Your task to perform on an android device: Clear the cart on target.com. Add "bose quietcomfort 35" to the cart on target.com Image 0: 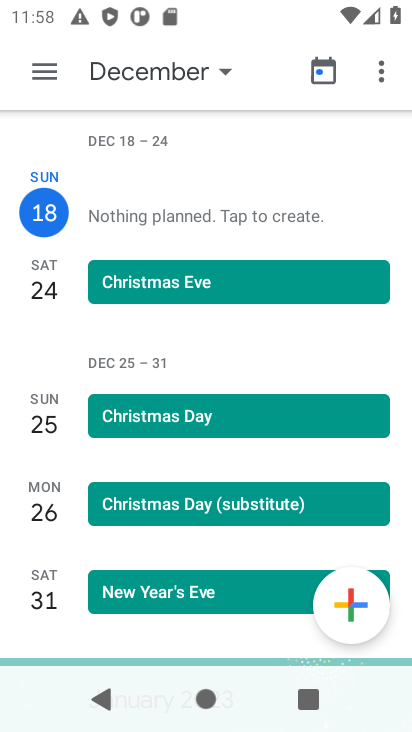
Step 0: press home button
Your task to perform on an android device: Clear the cart on target.com. Add "bose quietcomfort 35" to the cart on target.com Image 1: 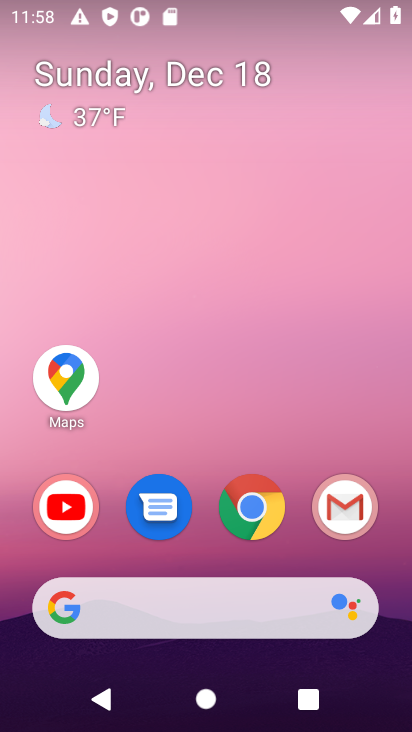
Step 1: click (249, 515)
Your task to perform on an android device: Clear the cart on target.com. Add "bose quietcomfort 35" to the cart on target.com Image 2: 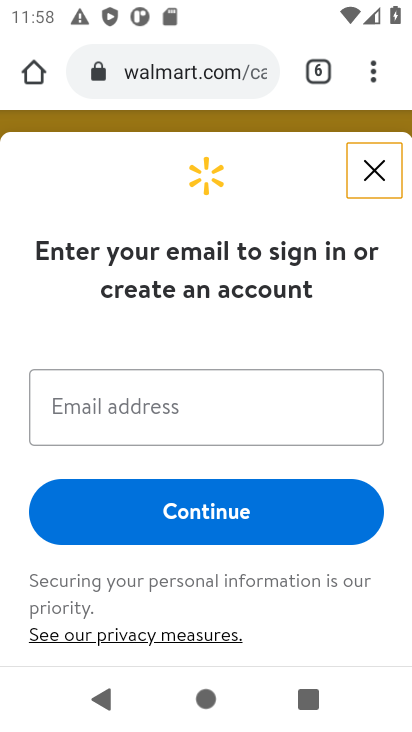
Step 2: click (191, 65)
Your task to perform on an android device: Clear the cart on target.com. Add "bose quietcomfort 35" to the cart on target.com Image 3: 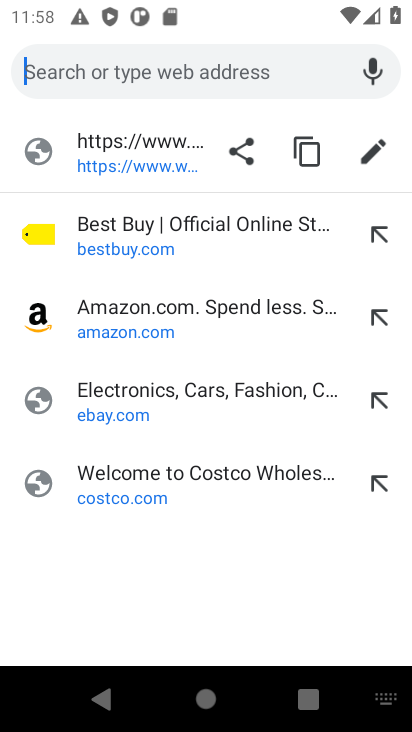
Step 3: type "target.com"
Your task to perform on an android device: Clear the cart on target.com. Add "bose quietcomfort 35" to the cart on target.com Image 4: 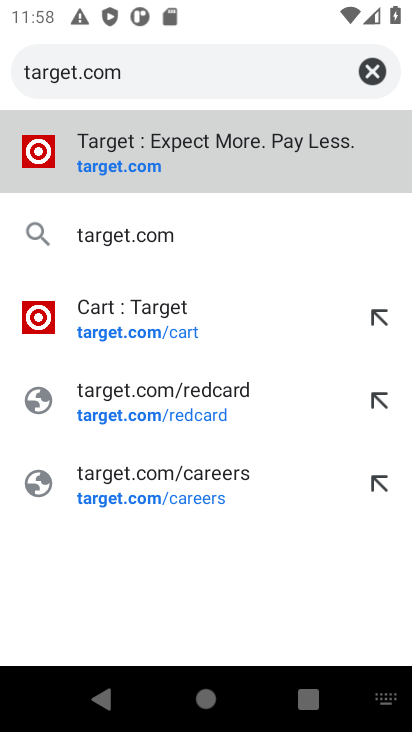
Step 4: click (107, 153)
Your task to perform on an android device: Clear the cart on target.com. Add "bose quietcomfort 35" to the cart on target.com Image 5: 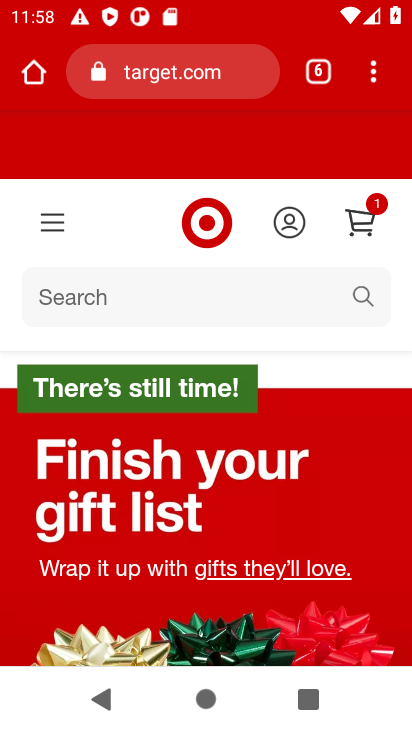
Step 5: click (357, 228)
Your task to perform on an android device: Clear the cart on target.com. Add "bose quietcomfort 35" to the cart on target.com Image 6: 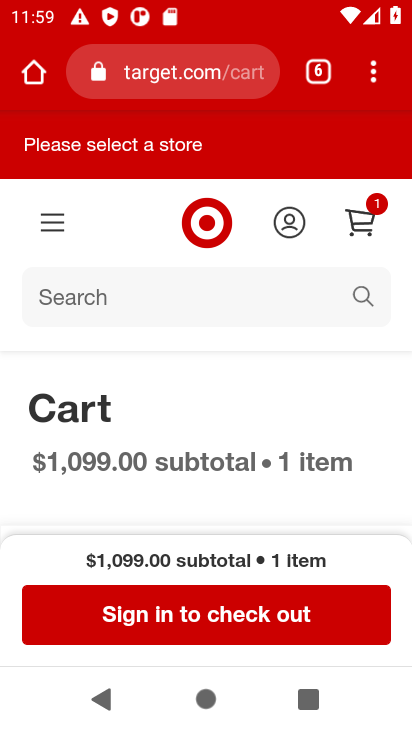
Step 6: drag from (194, 458) to (195, 170)
Your task to perform on an android device: Clear the cart on target.com. Add "bose quietcomfort 35" to the cart on target.com Image 7: 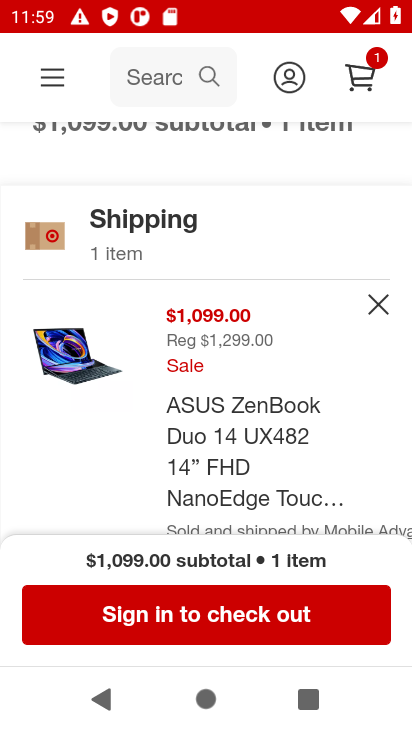
Step 7: click (376, 307)
Your task to perform on an android device: Clear the cart on target.com. Add "bose quietcomfort 35" to the cart on target.com Image 8: 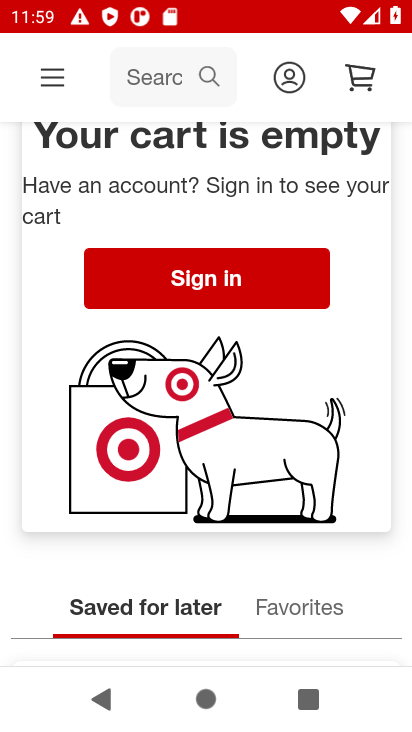
Step 8: drag from (189, 221) to (184, 449)
Your task to perform on an android device: Clear the cart on target.com. Add "bose quietcomfort 35" to the cart on target.com Image 9: 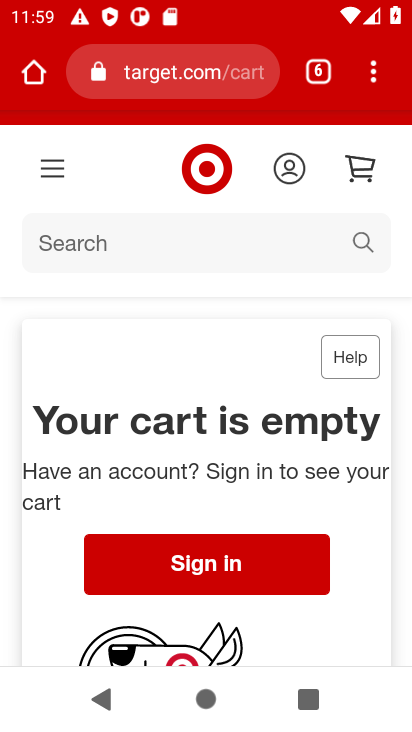
Step 9: click (92, 246)
Your task to perform on an android device: Clear the cart on target.com. Add "bose quietcomfort 35" to the cart on target.com Image 10: 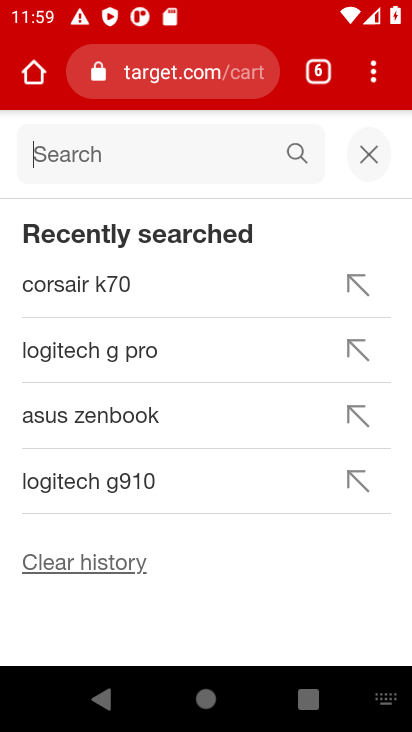
Step 10: type "bose quietcomfort 35"
Your task to perform on an android device: Clear the cart on target.com. Add "bose quietcomfort 35" to the cart on target.com Image 11: 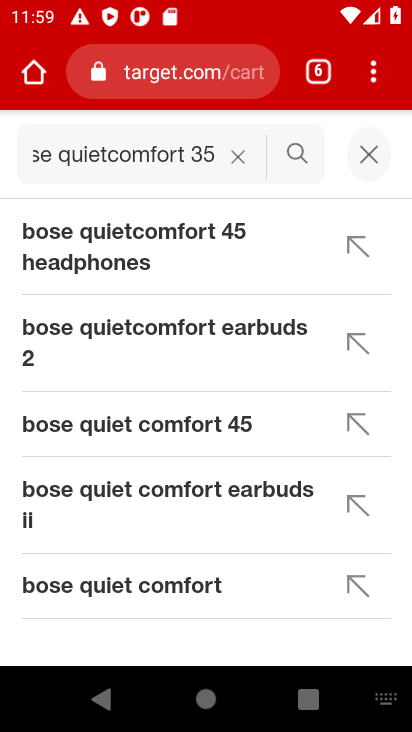
Step 11: click (303, 154)
Your task to perform on an android device: Clear the cart on target.com. Add "bose quietcomfort 35" to the cart on target.com Image 12: 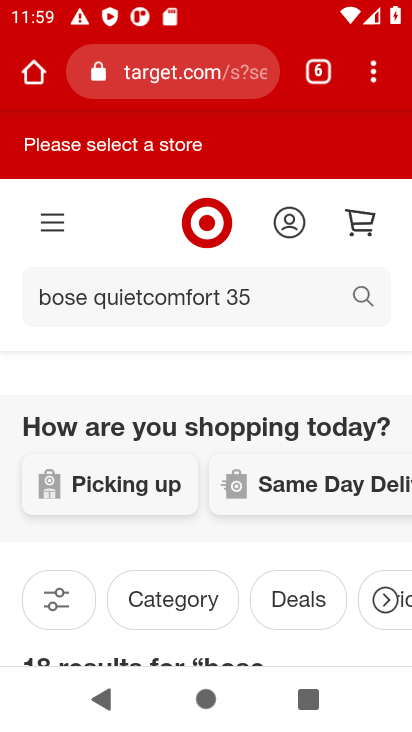
Step 12: drag from (230, 558) to (212, 255)
Your task to perform on an android device: Clear the cart on target.com. Add "bose quietcomfort 35" to the cart on target.com Image 13: 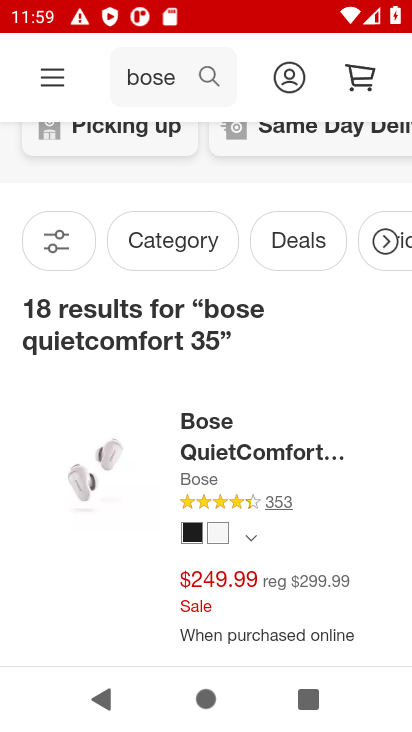
Step 13: drag from (124, 501) to (132, 262)
Your task to perform on an android device: Clear the cart on target.com. Add "bose quietcomfort 35" to the cart on target.com Image 14: 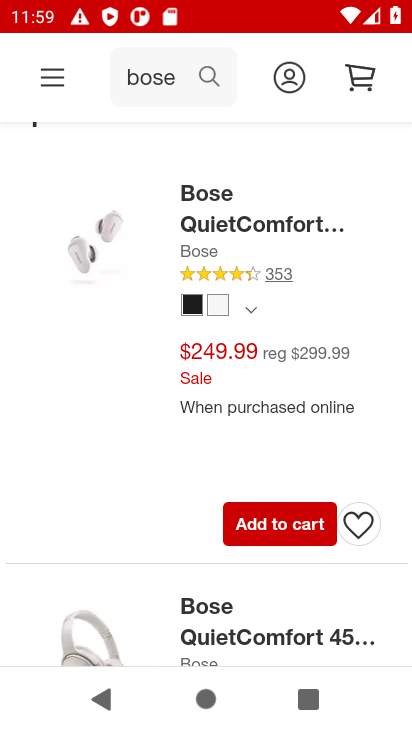
Step 14: click (206, 233)
Your task to perform on an android device: Clear the cart on target.com. Add "bose quietcomfort 35" to the cart on target.com Image 15: 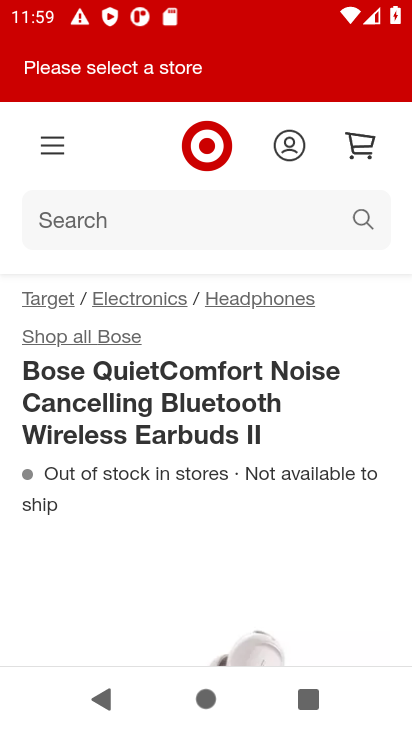
Step 15: drag from (180, 523) to (184, 181)
Your task to perform on an android device: Clear the cart on target.com. Add "bose quietcomfort 35" to the cart on target.com Image 16: 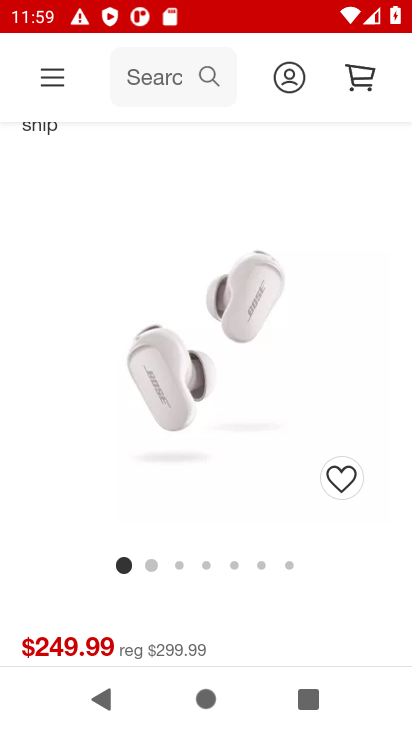
Step 16: drag from (183, 552) to (184, 225)
Your task to perform on an android device: Clear the cart on target.com. Add "bose quietcomfort 35" to the cart on target.com Image 17: 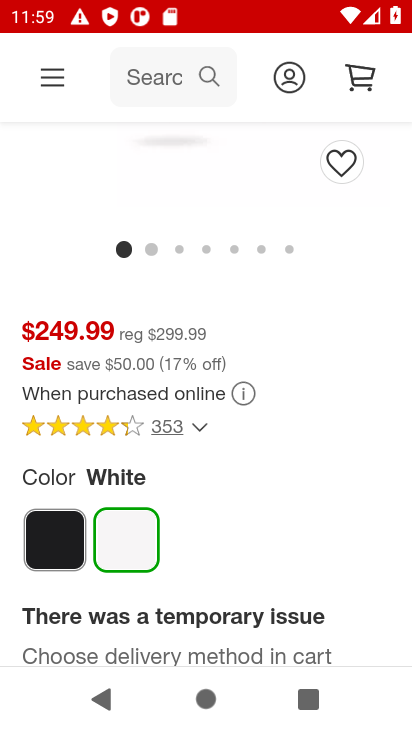
Step 17: drag from (182, 465) to (182, 282)
Your task to perform on an android device: Clear the cart on target.com. Add "bose quietcomfort 35" to the cart on target.com Image 18: 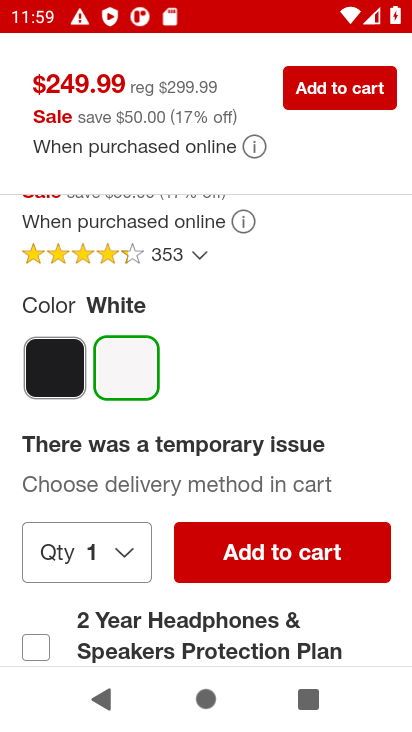
Step 18: press back button
Your task to perform on an android device: Clear the cart on target.com. Add "bose quietcomfort 35" to the cart on target.com Image 19: 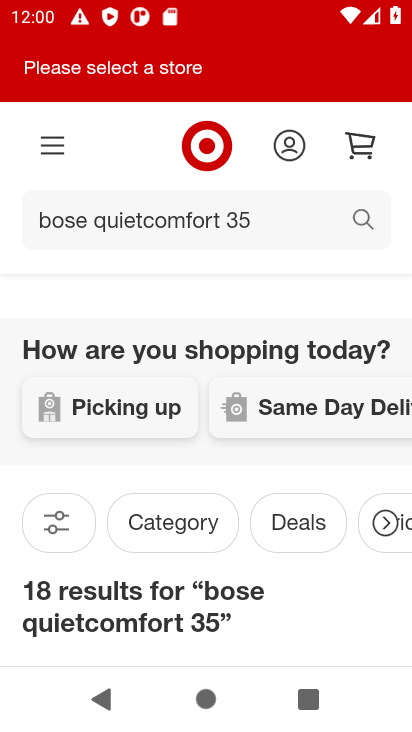
Step 19: drag from (225, 547) to (183, 157)
Your task to perform on an android device: Clear the cart on target.com. Add "bose quietcomfort 35" to the cart on target.com Image 20: 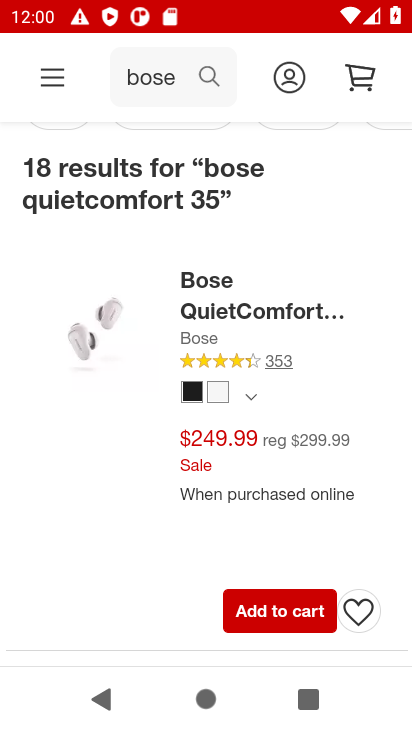
Step 20: drag from (154, 578) to (150, 191)
Your task to perform on an android device: Clear the cart on target.com. Add "bose quietcomfort 35" to the cart on target.com Image 21: 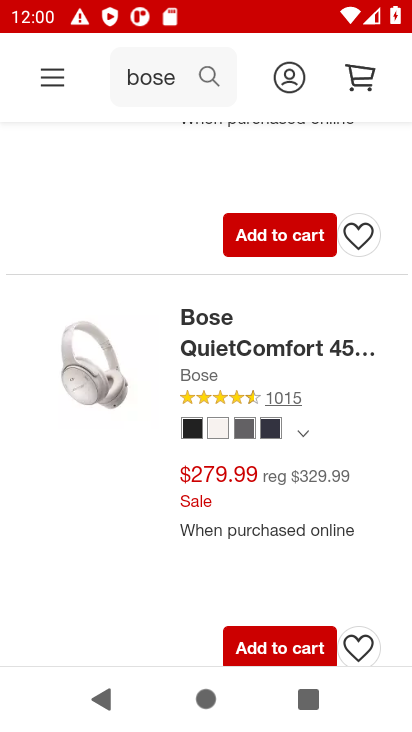
Step 21: drag from (137, 557) to (137, 213)
Your task to perform on an android device: Clear the cart on target.com. Add "bose quietcomfort 35" to the cart on target.com Image 22: 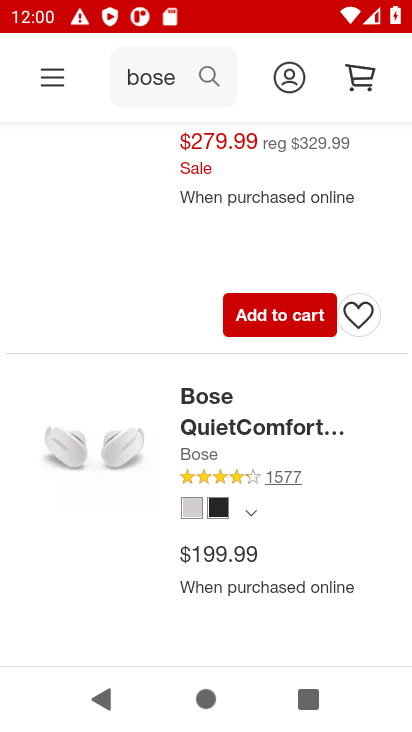
Step 22: drag from (137, 538) to (133, 340)
Your task to perform on an android device: Clear the cart on target.com. Add "bose quietcomfort 35" to the cart on target.com Image 23: 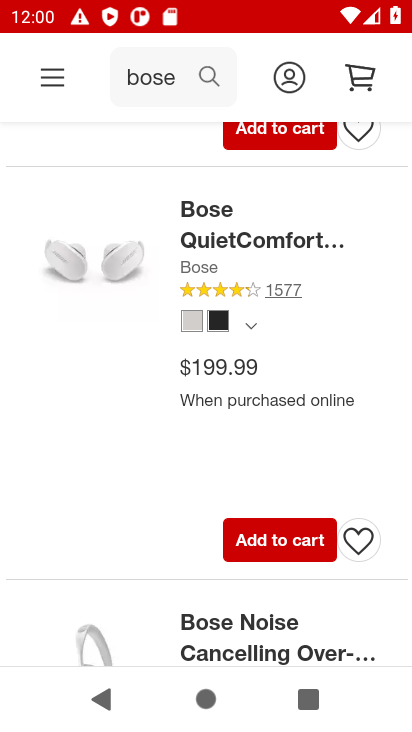
Step 23: click (242, 245)
Your task to perform on an android device: Clear the cart on target.com. Add "bose quietcomfort 35" to the cart on target.com Image 24: 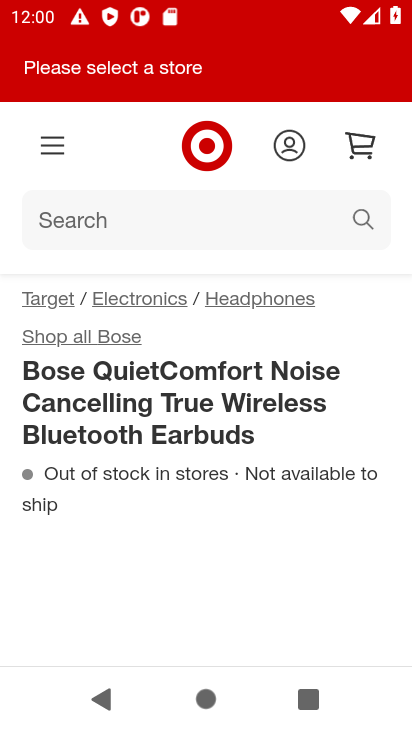
Step 24: task complete